Your task to perform on an android device: What is the recent news? Image 0: 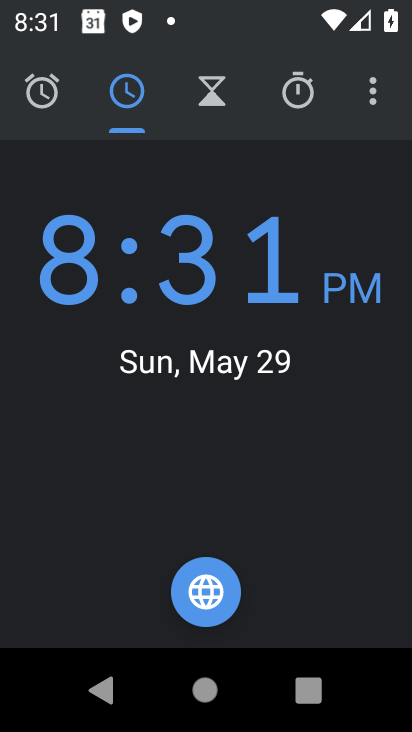
Step 0: press home button
Your task to perform on an android device: What is the recent news? Image 1: 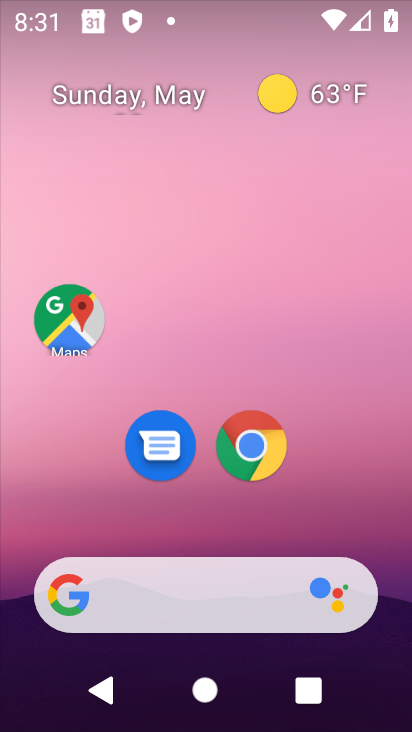
Step 1: task complete